Your task to perform on an android device: Show me popular videos on Youtube Image 0: 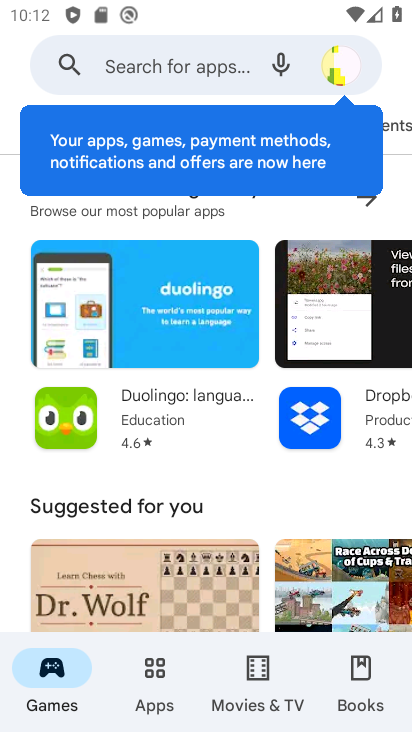
Step 0: press home button
Your task to perform on an android device: Show me popular videos on Youtube Image 1: 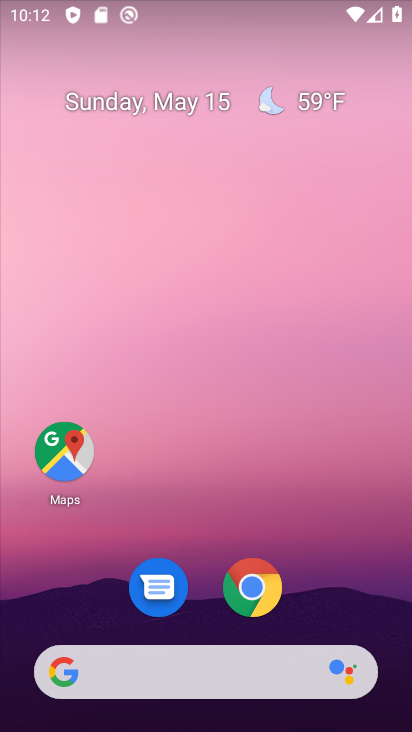
Step 1: drag from (103, 633) to (288, 199)
Your task to perform on an android device: Show me popular videos on Youtube Image 2: 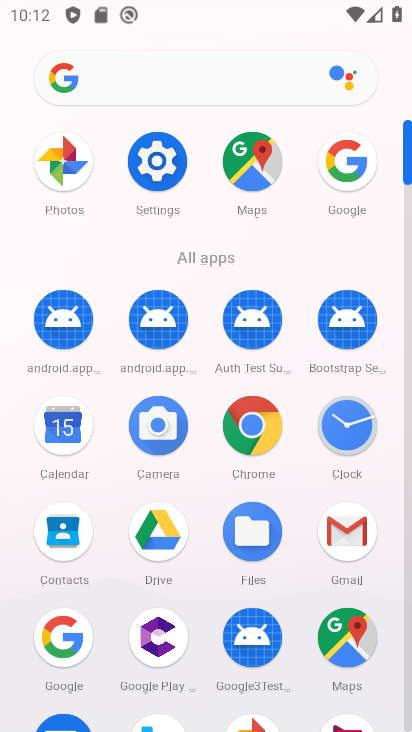
Step 2: drag from (188, 668) to (320, 348)
Your task to perform on an android device: Show me popular videos on Youtube Image 3: 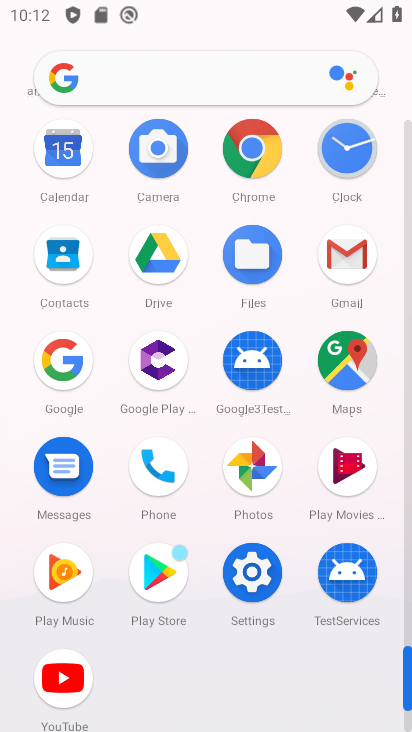
Step 3: drag from (276, 644) to (306, 496)
Your task to perform on an android device: Show me popular videos on Youtube Image 4: 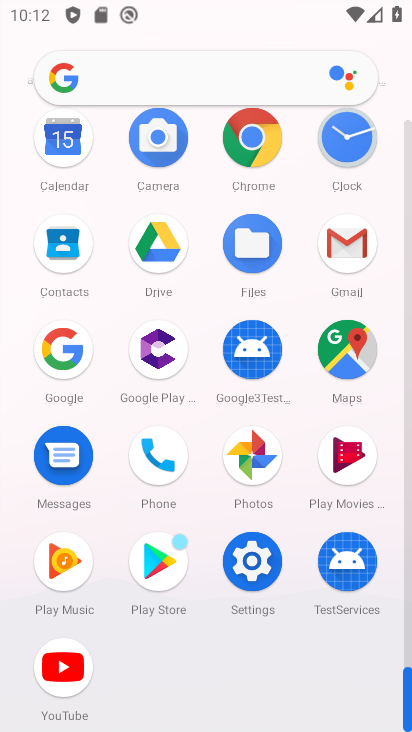
Step 4: click (63, 670)
Your task to perform on an android device: Show me popular videos on Youtube Image 5: 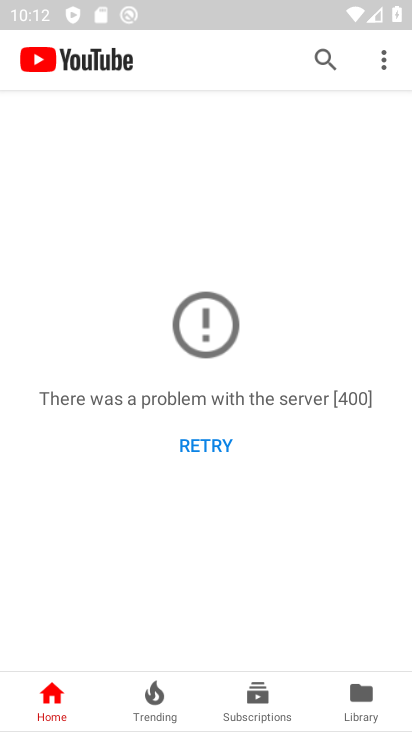
Step 5: click (156, 714)
Your task to perform on an android device: Show me popular videos on Youtube Image 6: 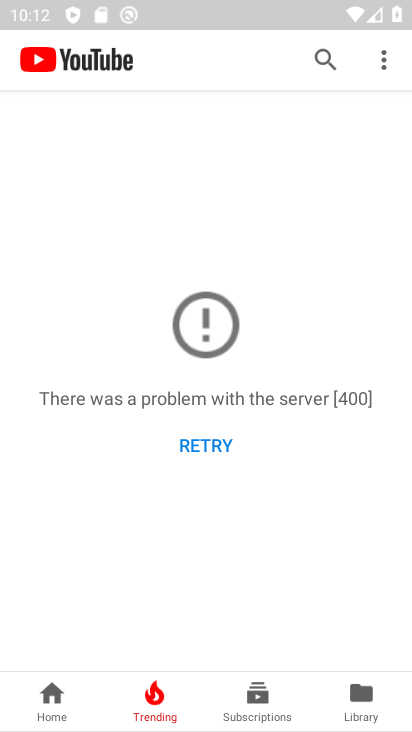
Step 6: task complete